Your task to perform on an android device: Search for sushi restaurants on Maps Image 0: 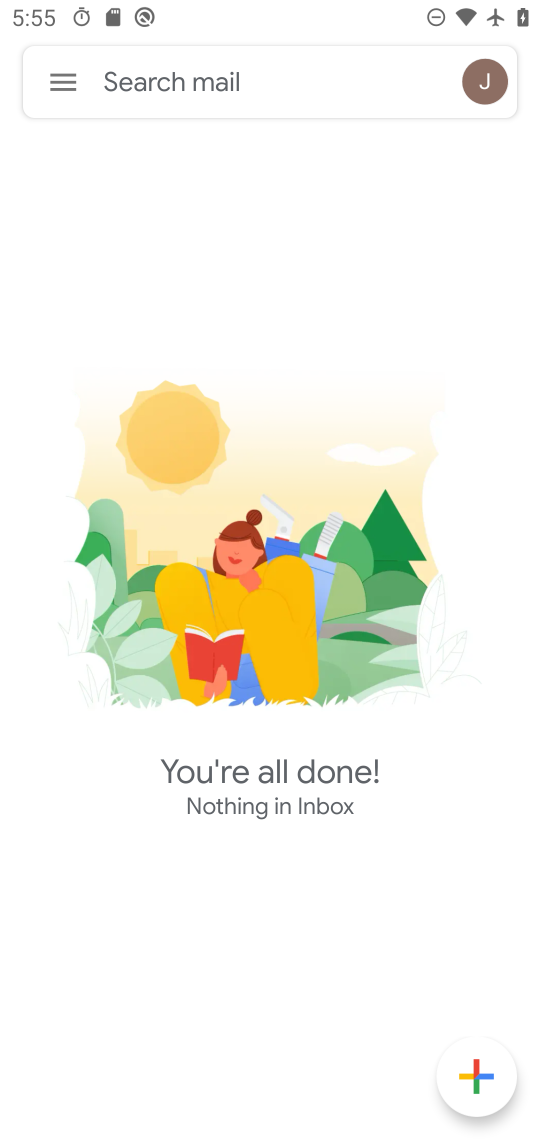
Step 0: press home button
Your task to perform on an android device: Search for sushi restaurants on Maps Image 1: 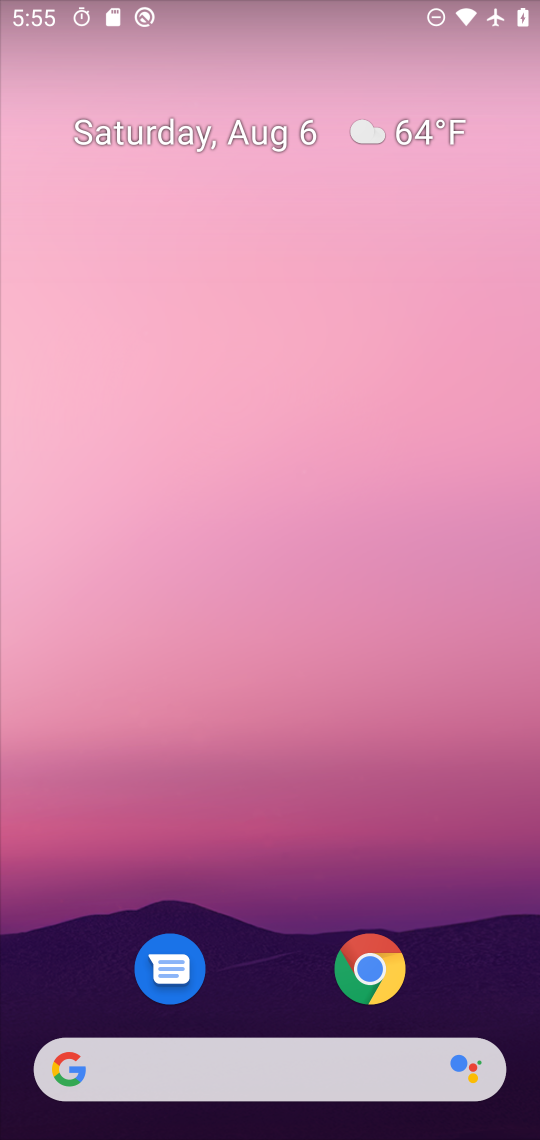
Step 1: drag from (215, 990) to (49, 6)
Your task to perform on an android device: Search for sushi restaurants on Maps Image 2: 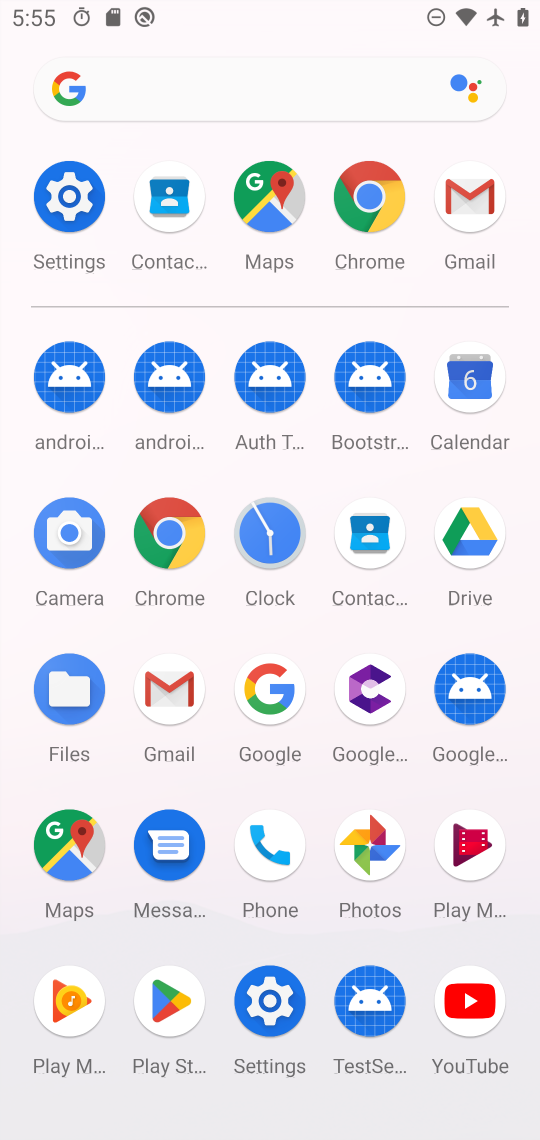
Step 2: click (261, 205)
Your task to perform on an android device: Search for sushi restaurants on Maps Image 3: 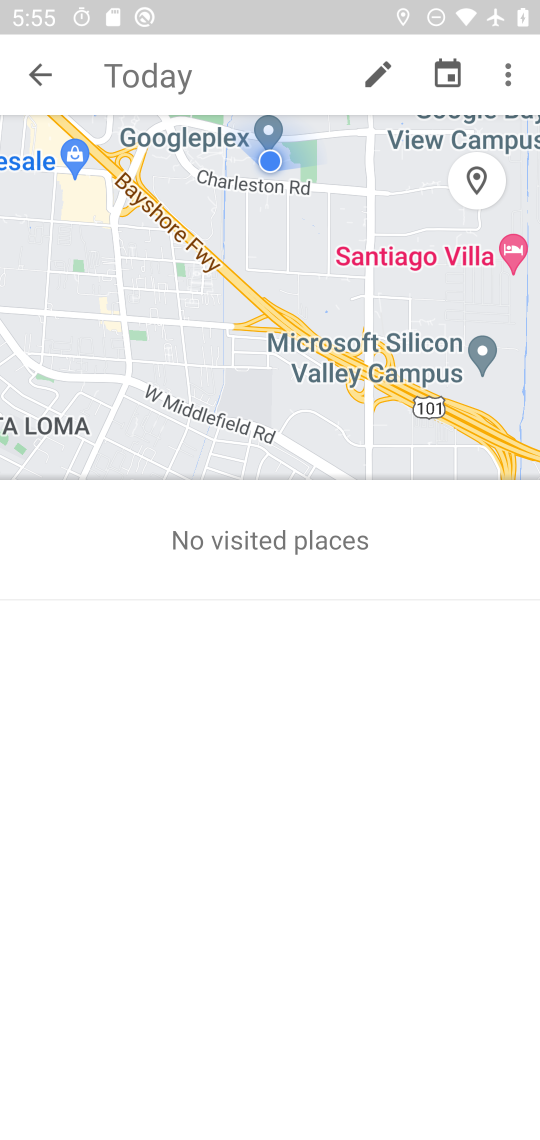
Step 3: click (32, 74)
Your task to perform on an android device: Search for sushi restaurants on Maps Image 4: 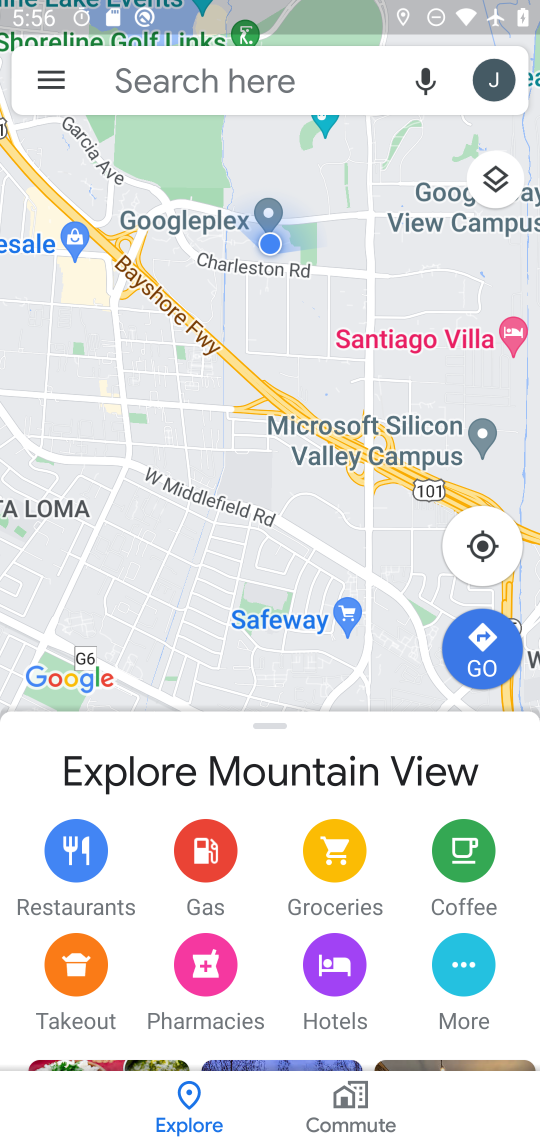
Step 4: click (259, 72)
Your task to perform on an android device: Search for sushi restaurants on Maps Image 5: 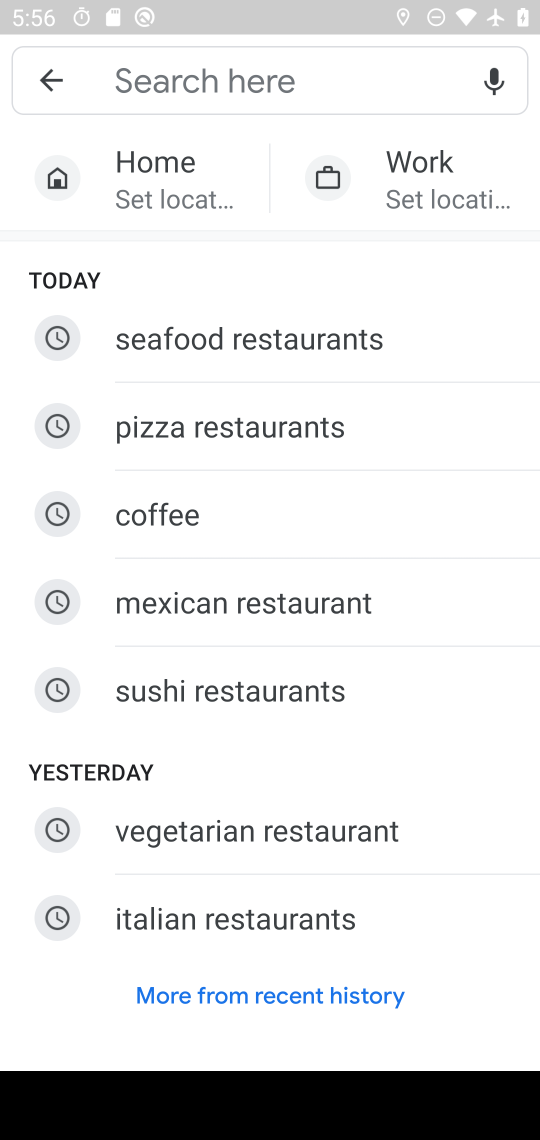
Step 5: click (192, 701)
Your task to perform on an android device: Search for sushi restaurants on Maps Image 6: 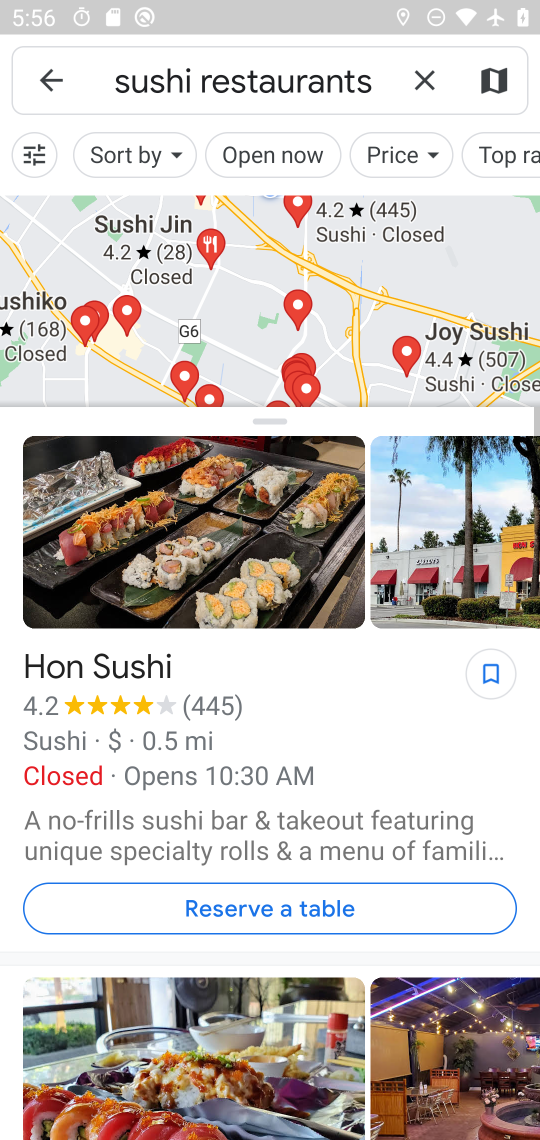
Step 6: task complete